Your task to perform on an android device: Open notification settings Image 0: 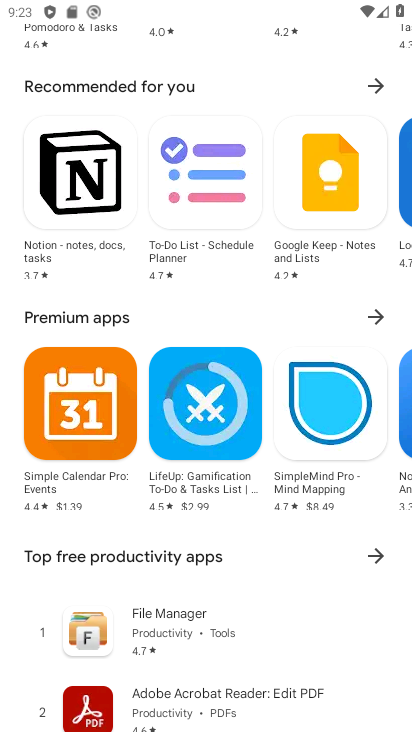
Step 0: press home button
Your task to perform on an android device: Open notification settings Image 1: 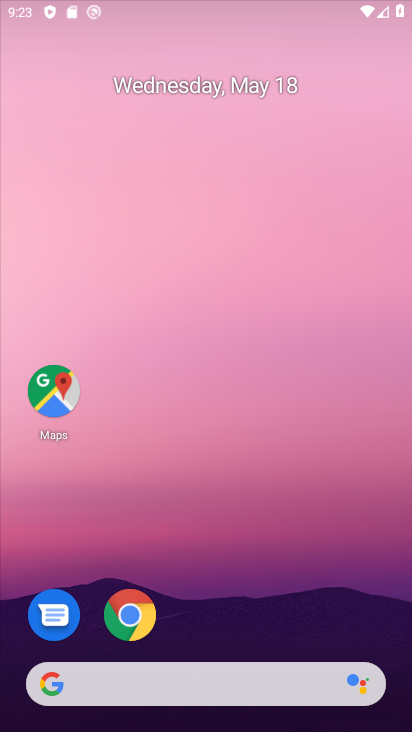
Step 1: drag from (209, 619) to (311, 30)
Your task to perform on an android device: Open notification settings Image 2: 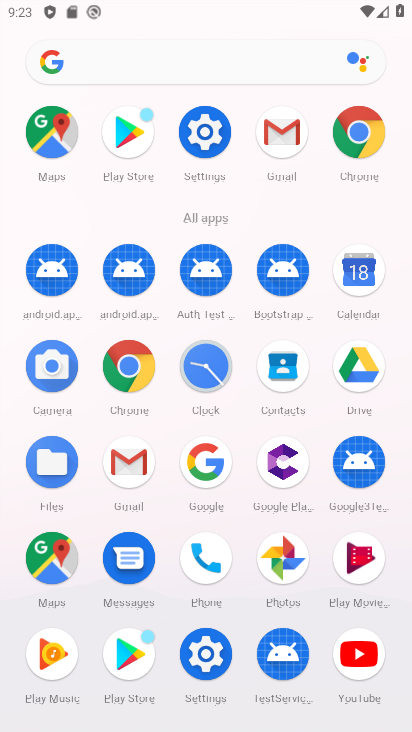
Step 2: click (203, 131)
Your task to perform on an android device: Open notification settings Image 3: 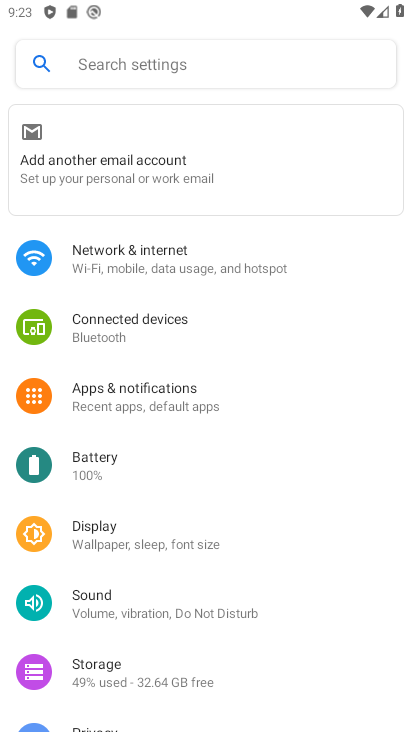
Step 3: click (134, 387)
Your task to perform on an android device: Open notification settings Image 4: 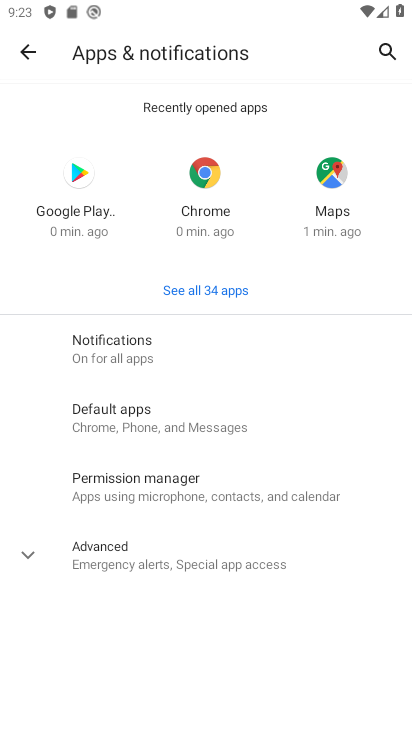
Step 4: click (136, 340)
Your task to perform on an android device: Open notification settings Image 5: 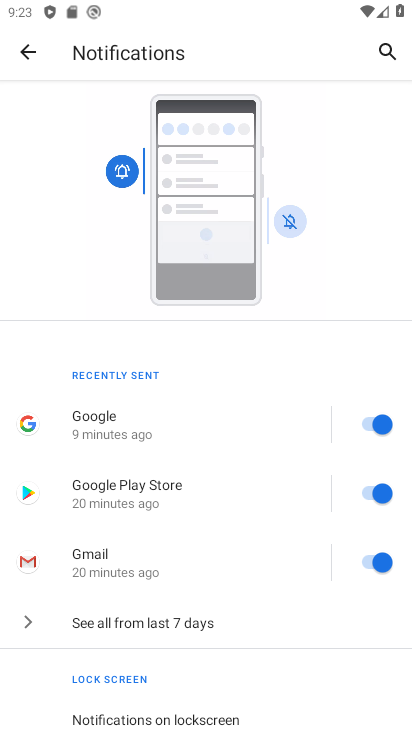
Step 5: task complete